Your task to perform on an android device: toggle pop-ups in chrome Image 0: 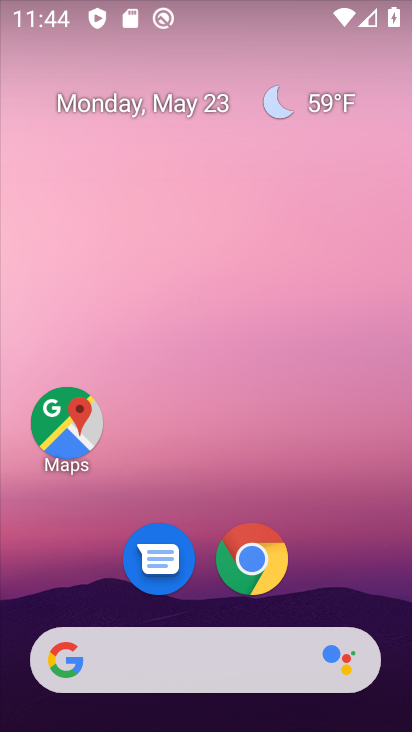
Step 0: click (259, 566)
Your task to perform on an android device: toggle pop-ups in chrome Image 1: 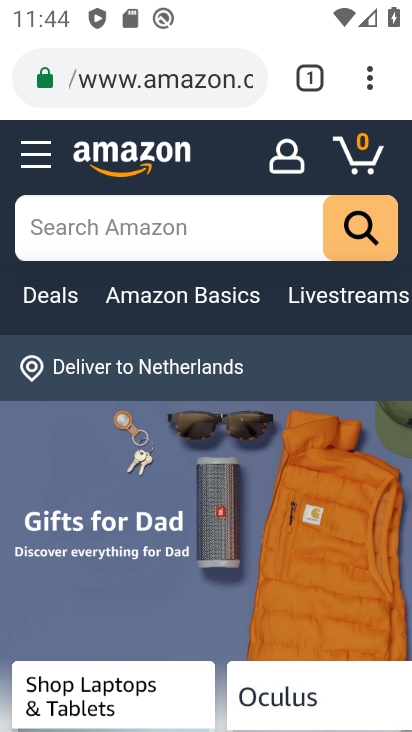
Step 1: press back button
Your task to perform on an android device: toggle pop-ups in chrome Image 2: 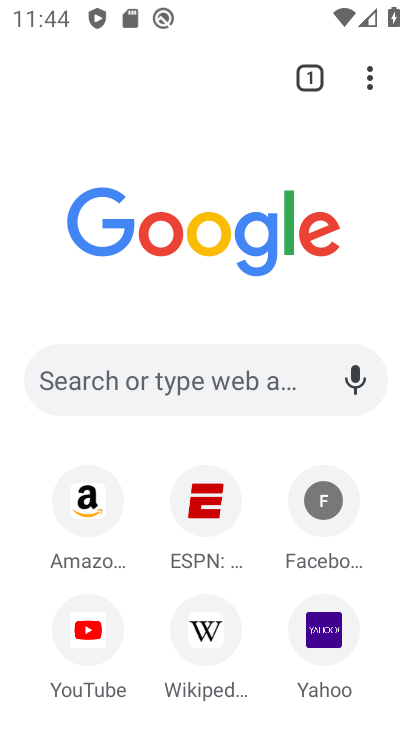
Step 2: click (377, 79)
Your task to perform on an android device: toggle pop-ups in chrome Image 3: 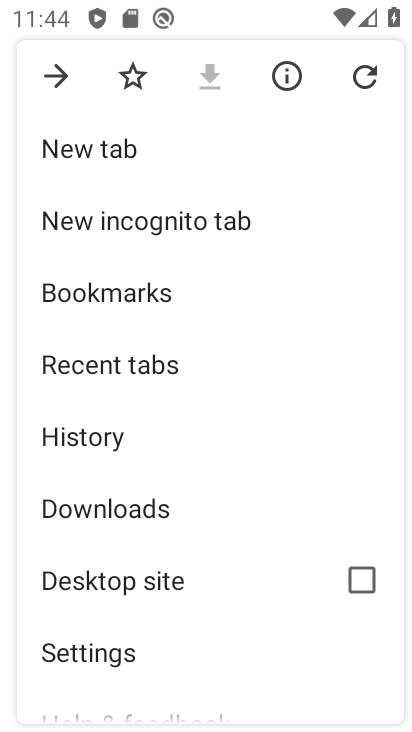
Step 3: click (154, 663)
Your task to perform on an android device: toggle pop-ups in chrome Image 4: 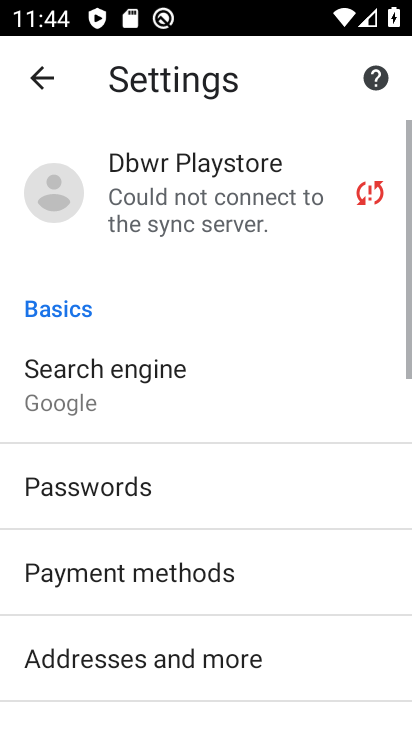
Step 4: drag from (154, 663) to (219, 135)
Your task to perform on an android device: toggle pop-ups in chrome Image 5: 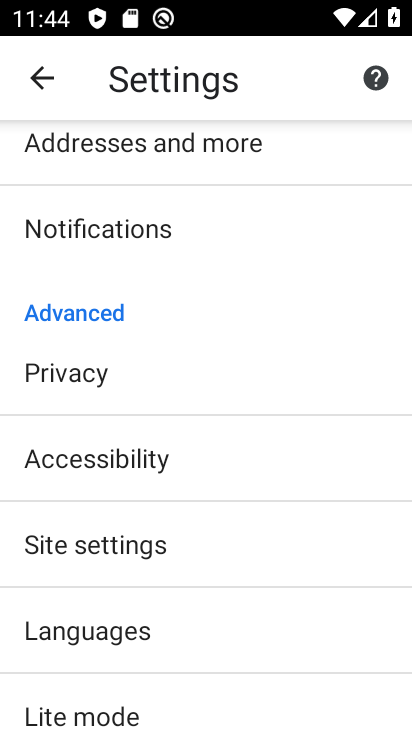
Step 5: click (151, 568)
Your task to perform on an android device: toggle pop-ups in chrome Image 6: 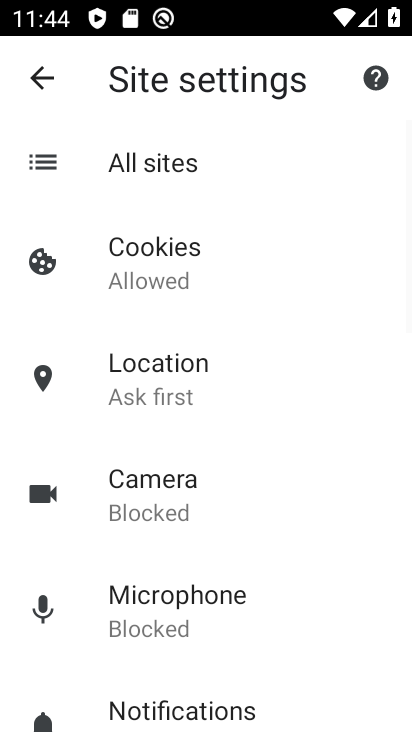
Step 6: drag from (189, 678) to (232, 199)
Your task to perform on an android device: toggle pop-ups in chrome Image 7: 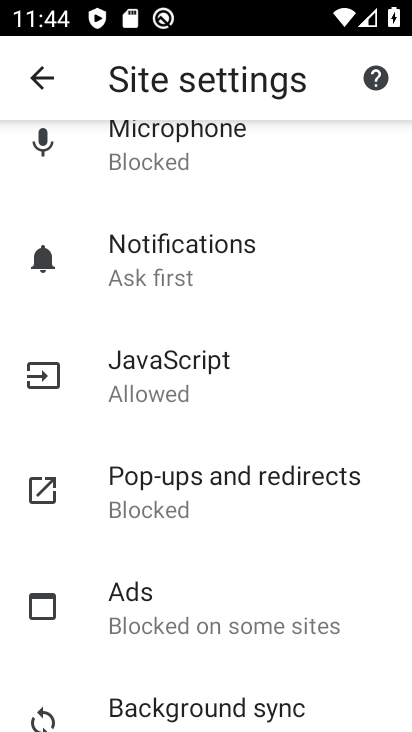
Step 7: click (221, 485)
Your task to perform on an android device: toggle pop-ups in chrome Image 8: 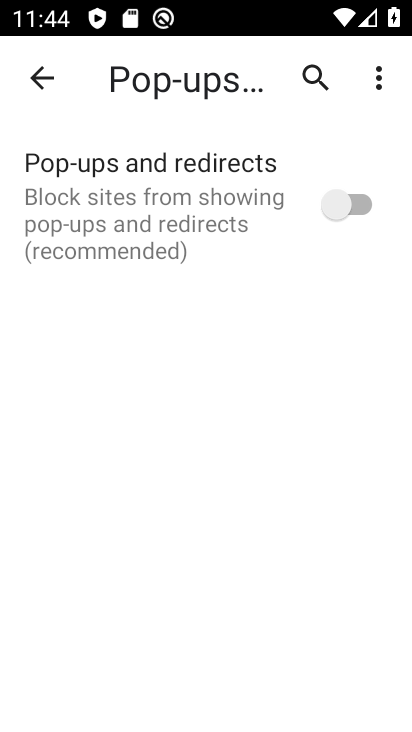
Step 8: click (303, 208)
Your task to perform on an android device: toggle pop-ups in chrome Image 9: 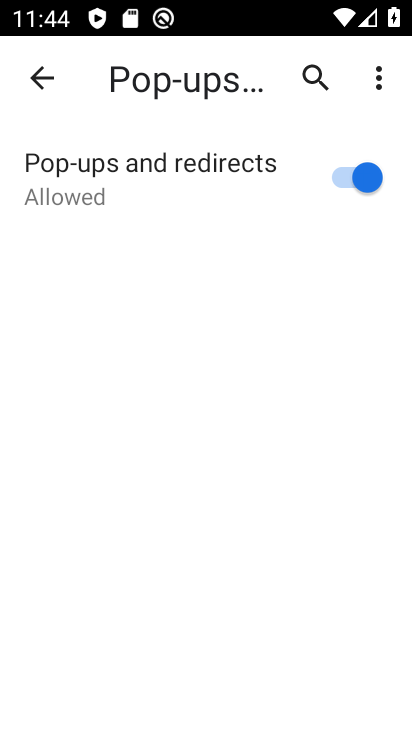
Step 9: task complete